Your task to perform on an android device: Go to Google maps Image 0: 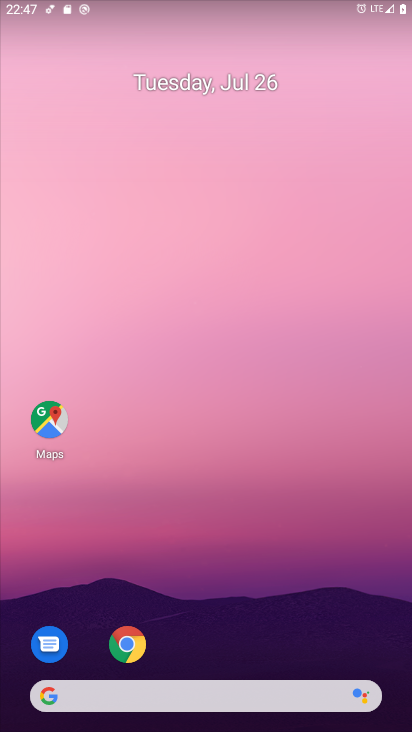
Step 0: click (34, 385)
Your task to perform on an android device: Go to Google maps Image 1: 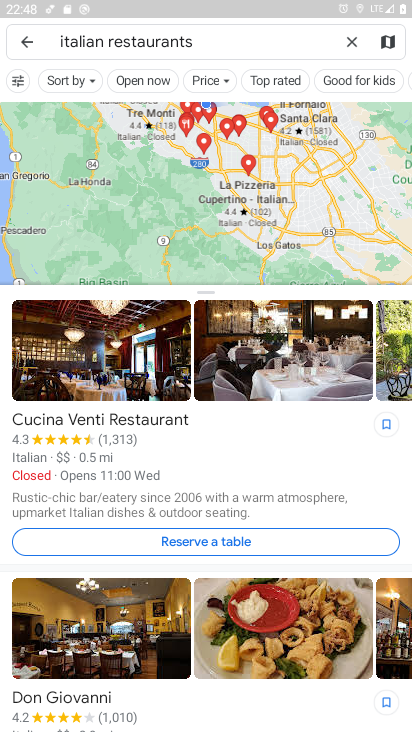
Step 1: click (23, 41)
Your task to perform on an android device: Go to Google maps Image 2: 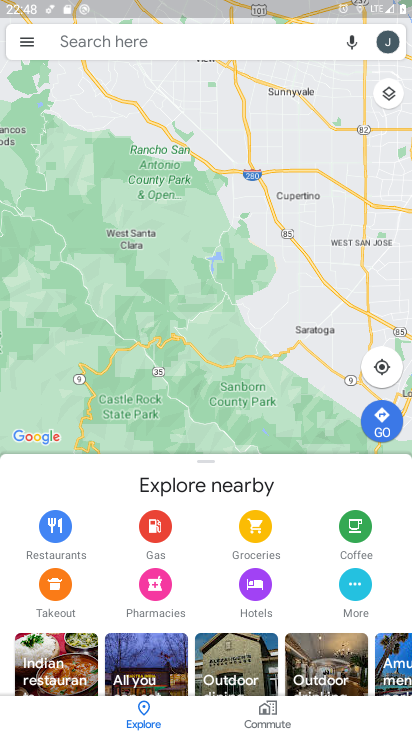
Step 2: task complete